Your task to perform on an android device: change alarm snooze length Image 0: 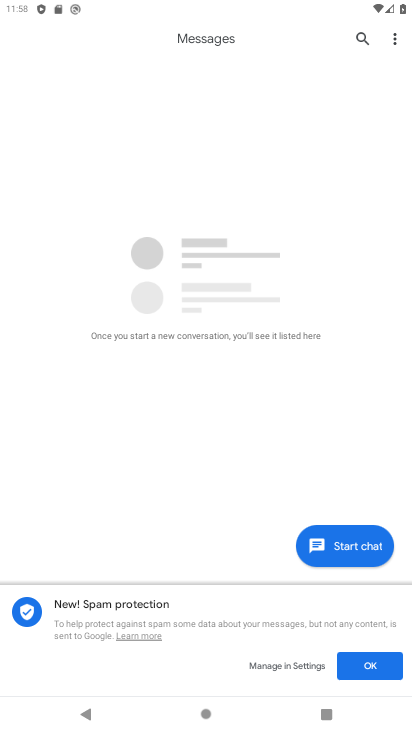
Step 0: press home button
Your task to perform on an android device: change alarm snooze length Image 1: 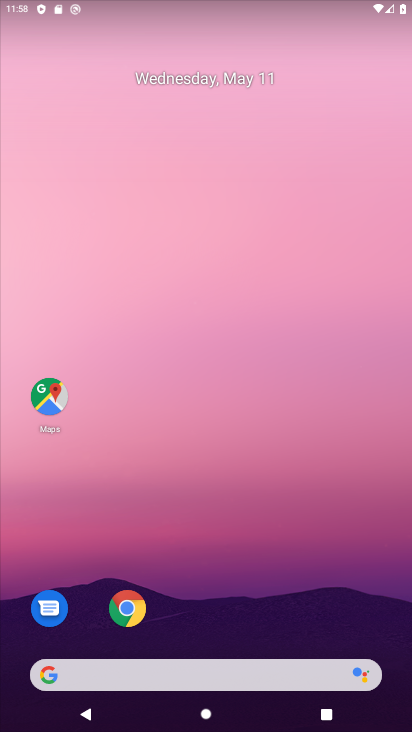
Step 1: drag from (250, 648) to (249, 16)
Your task to perform on an android device: change alarm snooze length Image 2: 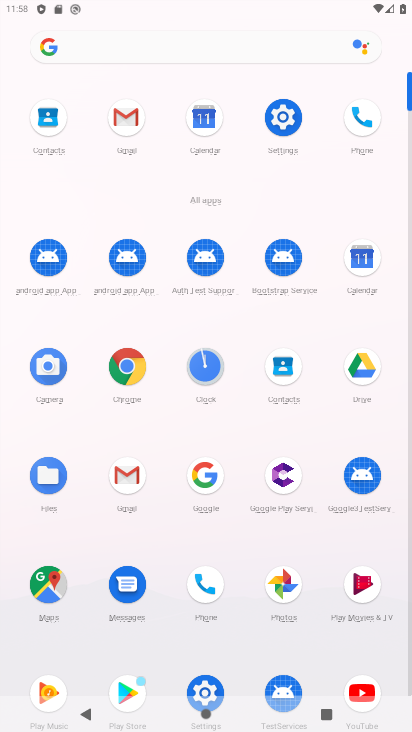
Step 2: click (209, 374)
Your task to perform on an android device: change alarm snooze length Image 3: 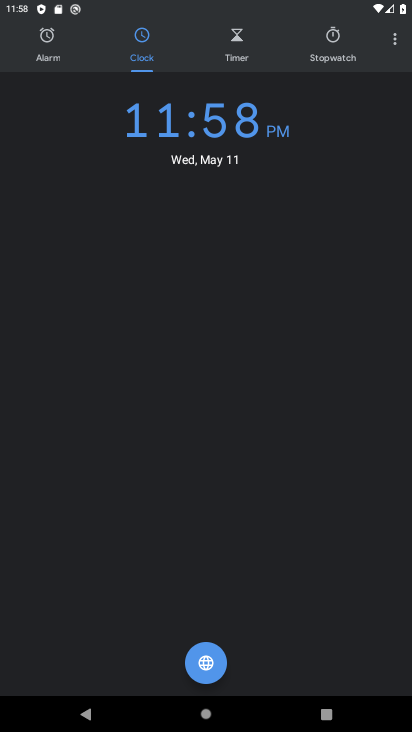
Step 3: click (401, 44)
Your task to perform on an android device: change alarm snooze length Image 4: 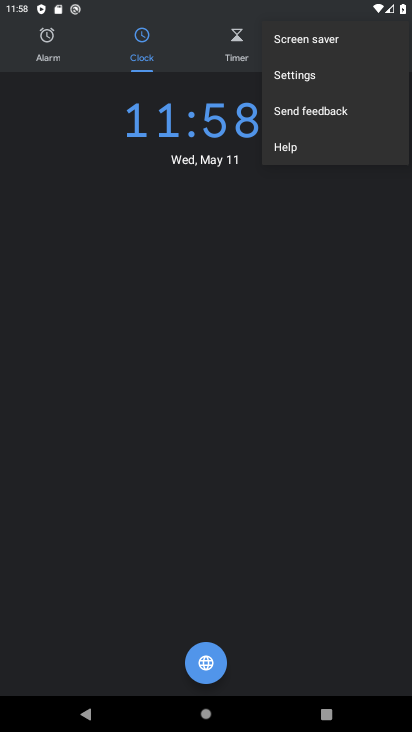
Step 4: click (337, 80)
Your task to perform on an android device: change alarm snooze length Image 5: 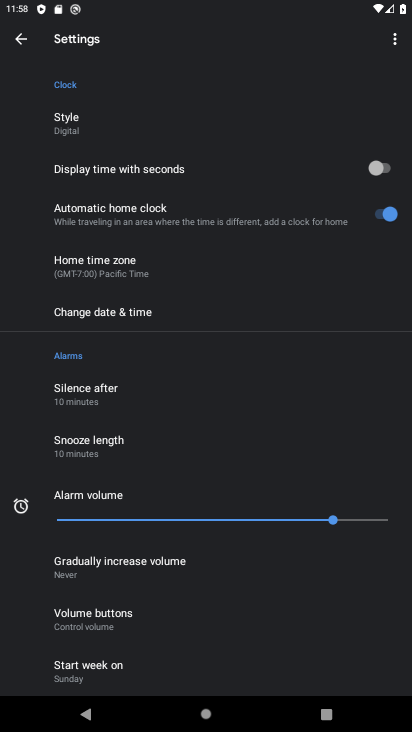
Step 5: click (77, 440)
Your task to perform on an android device: change alarm snooze length Image 6: 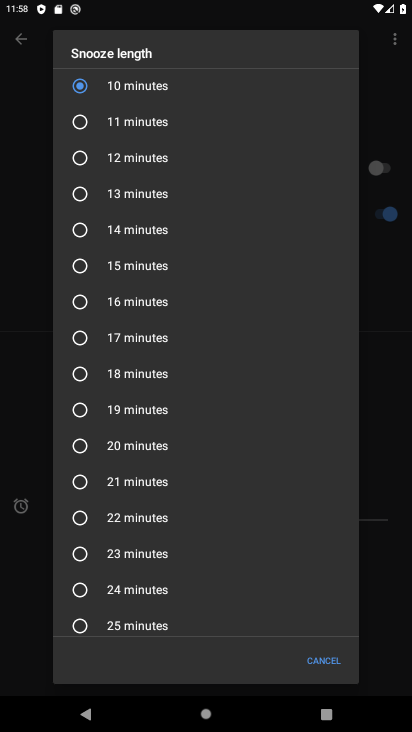
Step 6: click (84, 157)
Your task to perform on an android device: change alarm snooze length Image 7: 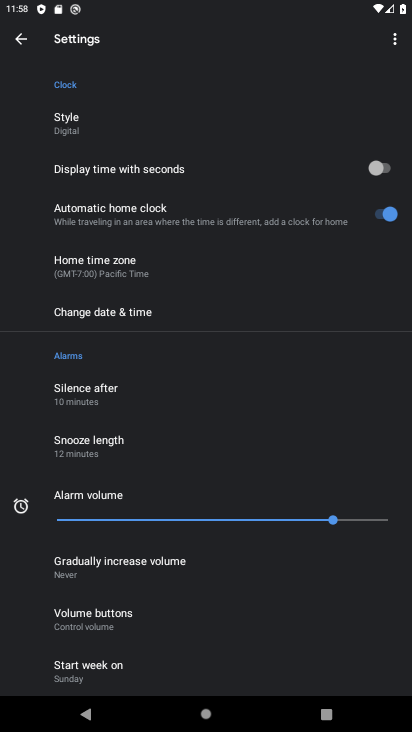
Step 7: task complete